Your task to perform on an android device: open app "DoorDash - Food Delivery" Image 0: 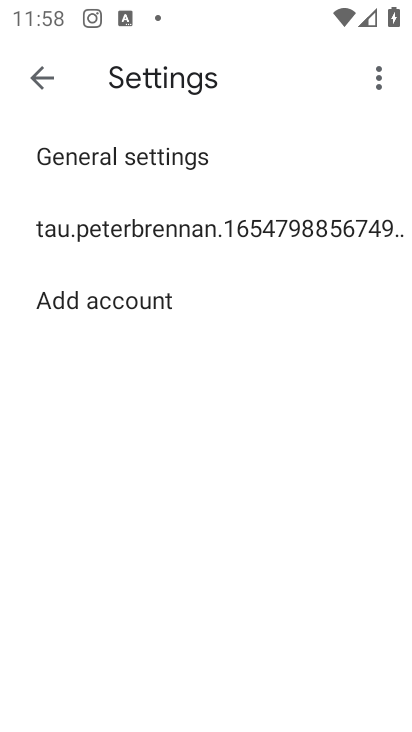
Step 0: press back button
Your task to perform on an android device: open app "DoorDash - Food Delivery" Image 1: 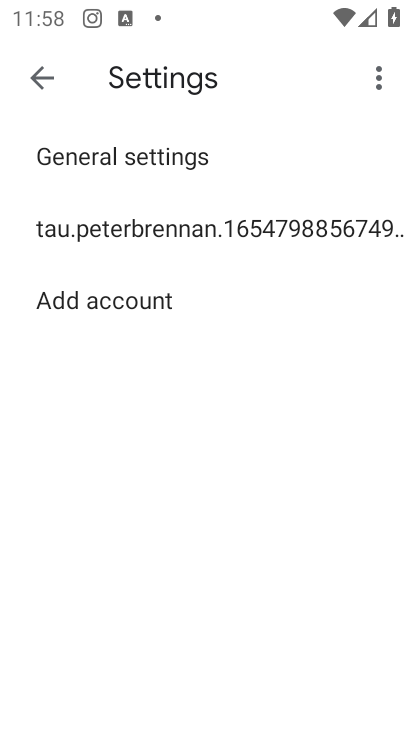
Step 1: press back button
Your task to perform on an android device: open app "DoorDash - Food Delivery" Image 2: 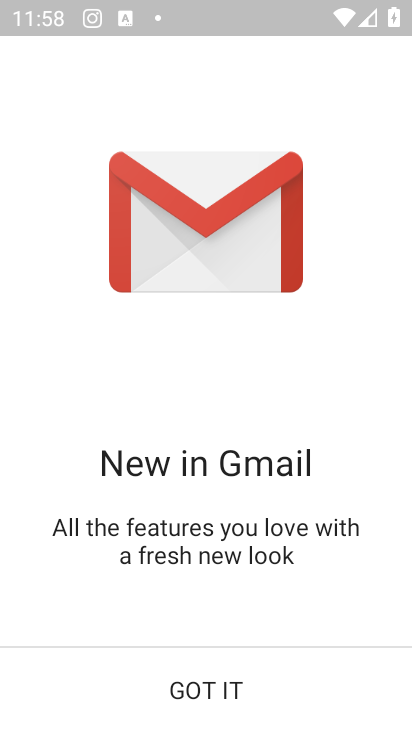
Step 2: press back button
Your task to perform on an android device: open app "DoorDash - Food Delivery" Image 3: 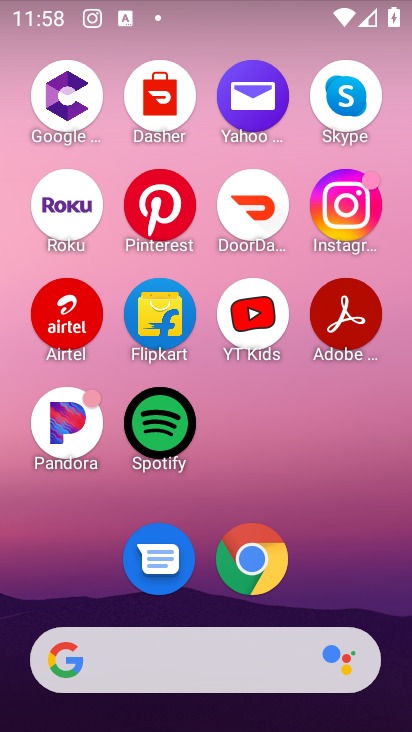
Step 3: drag from (261, 367) to (28, 333)
Your task to perform on an android device: open app "DoorDash - Food Delivery" Image 4: 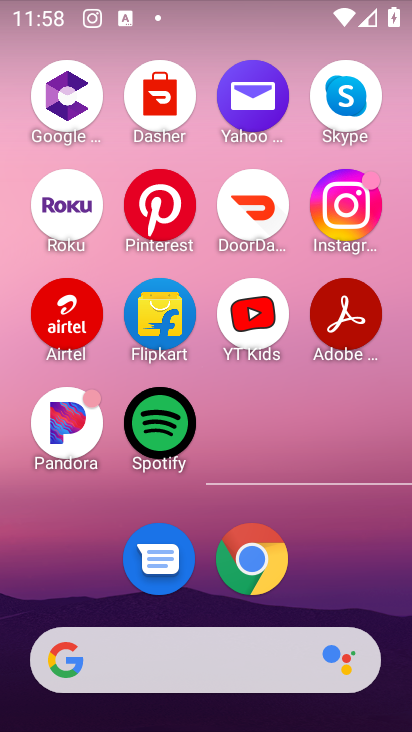
Step 4: drag from (47, 581) to (151, 65)
Your task to perform on an android device: open app "DoorDash - Food Delivery" Image 5: 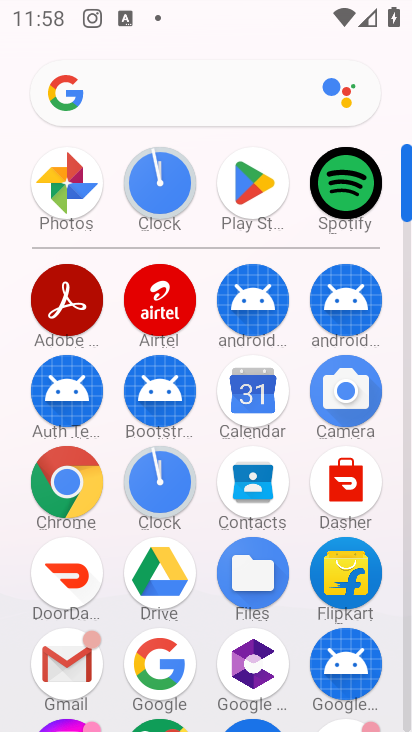
Step 5: drag from (206, 619) to (295, 17)
Your task to perform on an android device: open app "DoorDash - Food Delivery" Image 6: 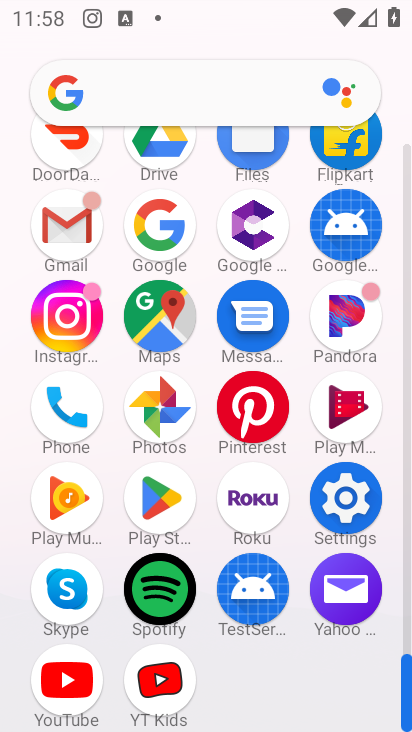
Step 6: drag from (264, 169) to (249, 664)
Your task to perform on an android device: open app "DoorDash - Food Delivery" Image 7: 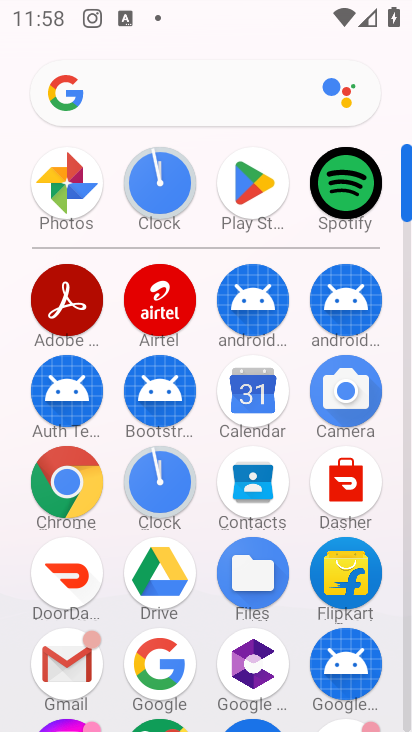
Step 7: click (257, 191)
Your task to perform on an android device: open app "DoorDash - Food Delivery" Image 8: 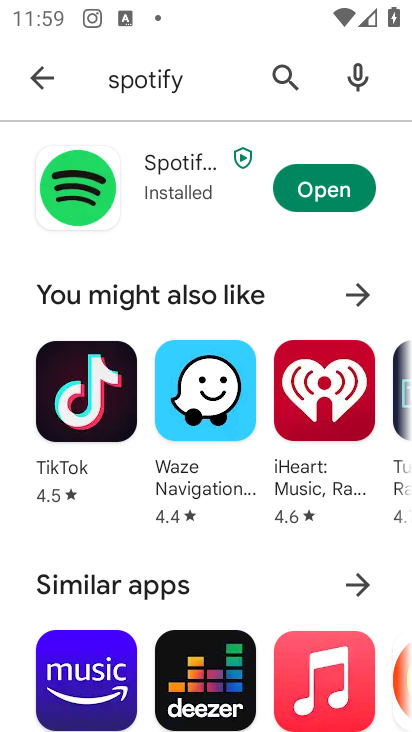
Step 8: click (277, 71)
Your task to perform on an android device: open app "DoorDash - Food Delivery" Image 9: 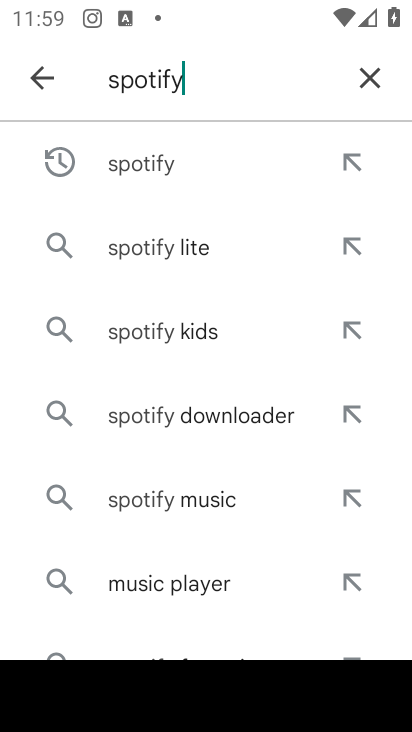
Step 9: click (348, 79)
Your task to perform on an android device: open app "DoorDash - Food Delivery" Image 10: 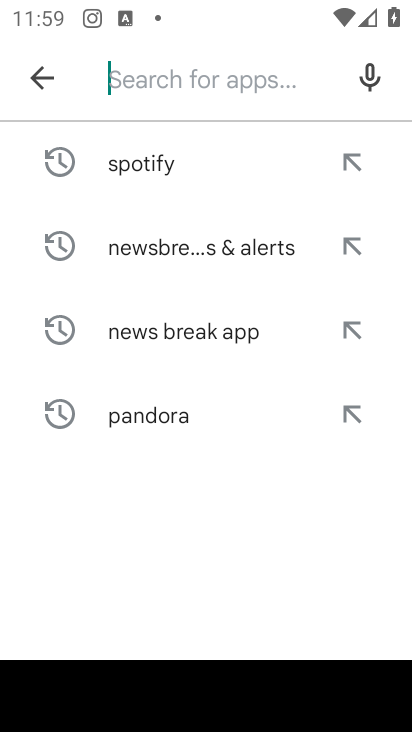
Step 10: click (189, 79)
Your task to perform on an android device: open app "DoorDash - Food Delivery" Image 11: 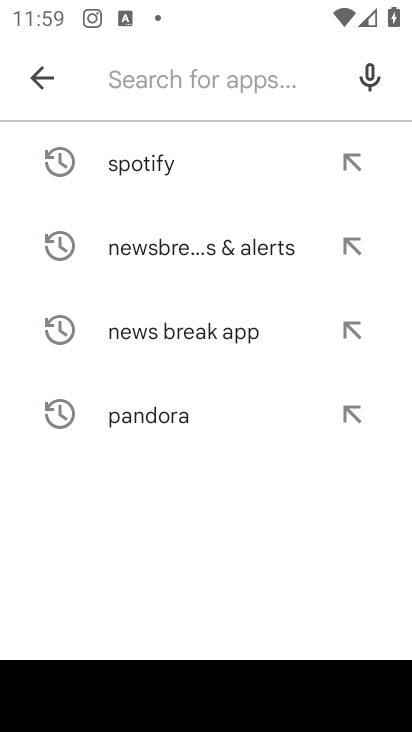
Step 11: type "door dash food"
Your task to perform on an android device: open app "DoorDash - Food Delivery" Image 12: 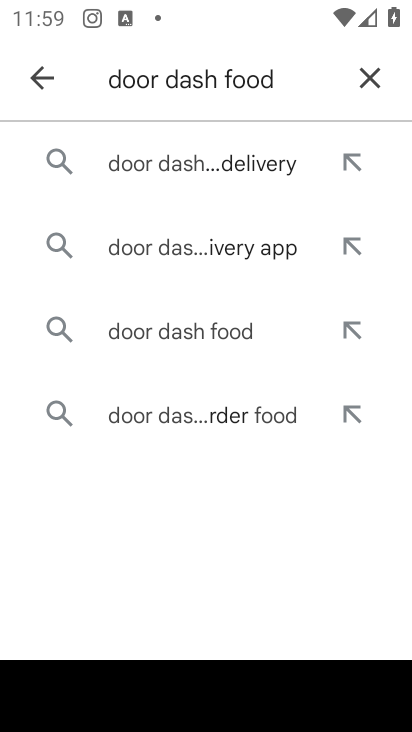
Step 12: click (198, 175)
Your task to perform on an android device: open app "DoorDash - Food Delivery" Image 13: 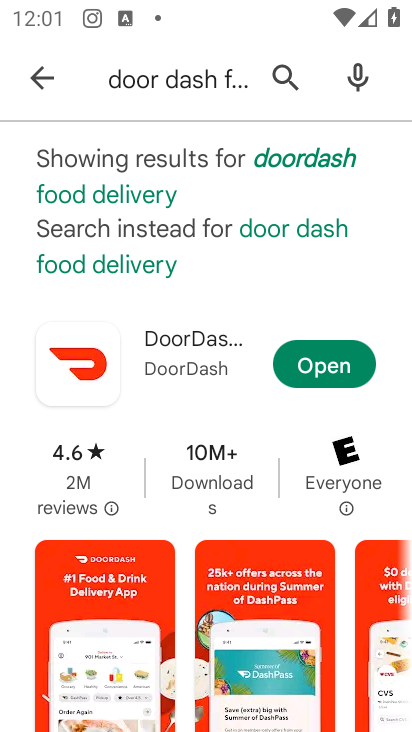
Step 13: click (316, 363)
Your task to perform on an android device: open app "DoorDash - Food Delivery" Image 14: 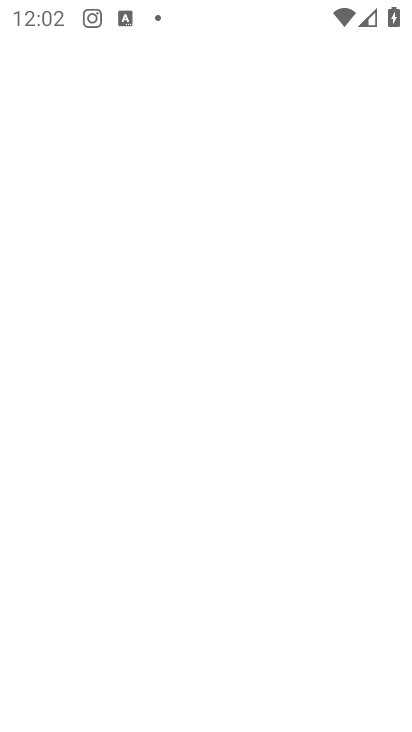
Step 14: task complete